Your task to perform on an android device: set the stopwatch Image 0: 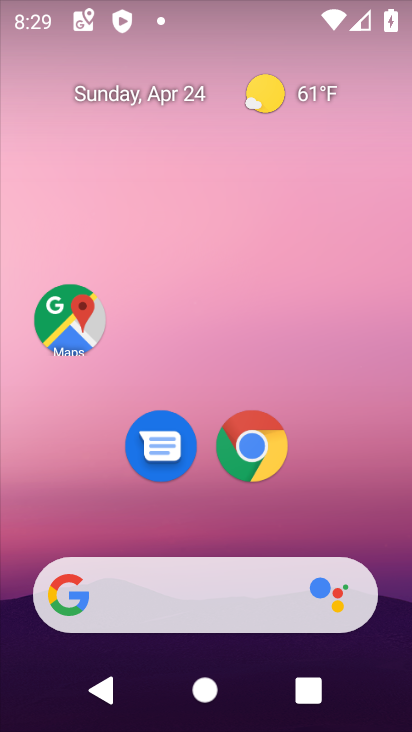
Step 0: drag from (242, 481) to (197, 27)
Your task to perform on an android device: set the stopwatch Image 1: 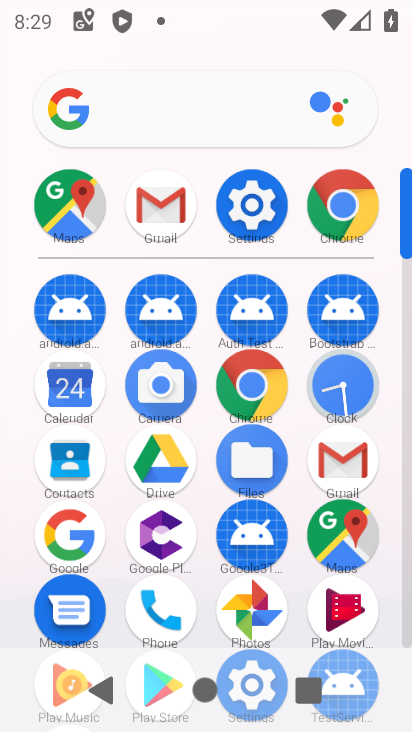
Step 1: click (345, 392)
Your task to perform on an android device: set the stopwatch Image 2: 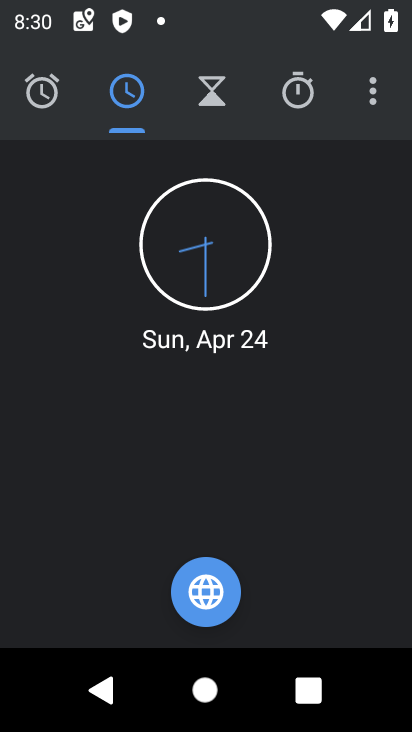
Step 2: click (303, 99)
Your task to perform on an android device: set the stopwatch Image 3: 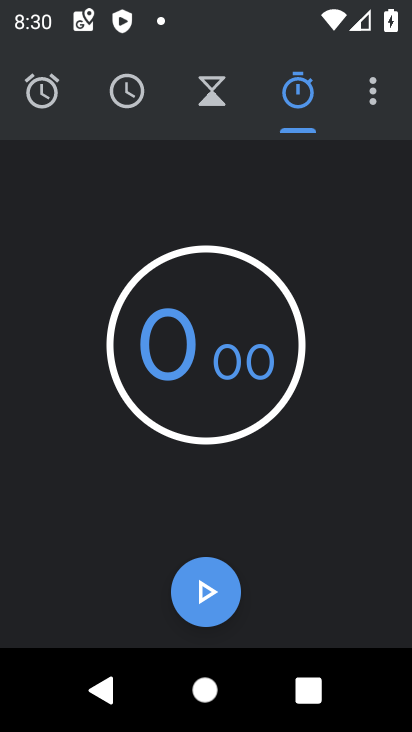
Step 3: click (195, 593)
Your task to perform on an android device: set the stopwatch Image 4: 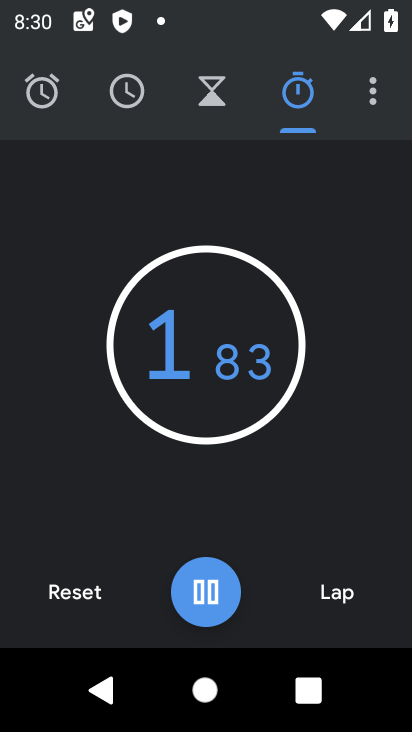
Step 4: task complete